Your task to perform on an android device: check android version Image 0: 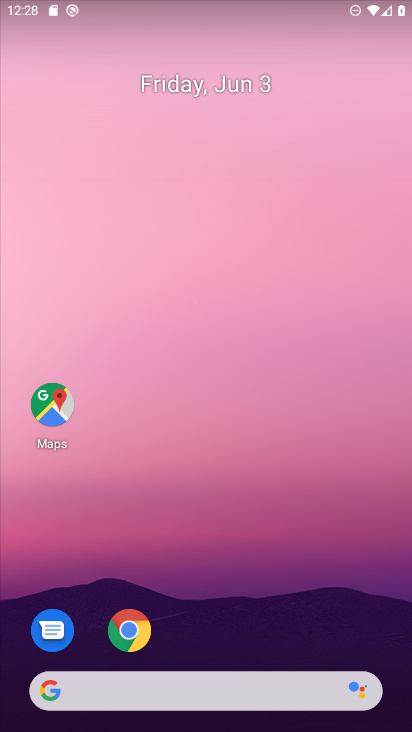
Step 0: drag from (257, 634) to (166, 83)
Your task to perform on an android device: check android version Image 1: 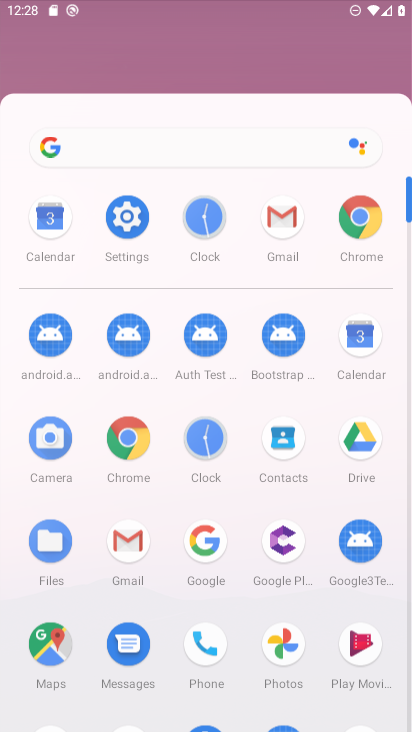
Step 1: click (126, 226)
Your task to perform on an android device: check android version Image 2: 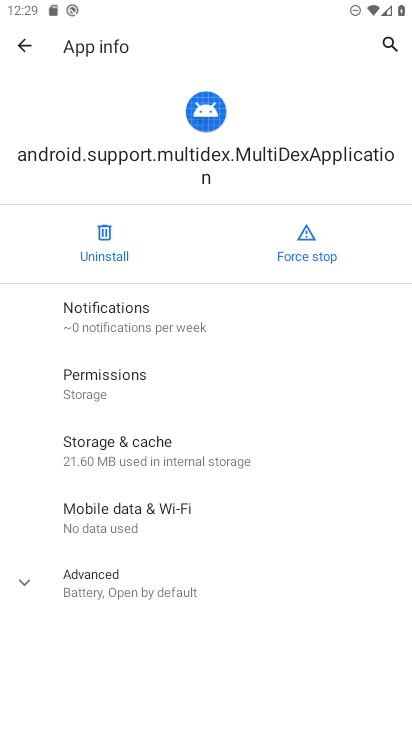
Step 2: click (32, 47)
Your task to perform on an android device: check android version Image 3: 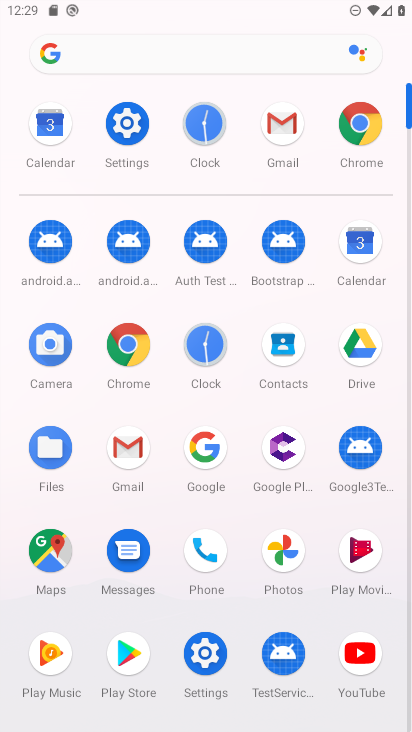
Step 3: click (126, 110)
Your task to perform on an android device: check android version Image 4: 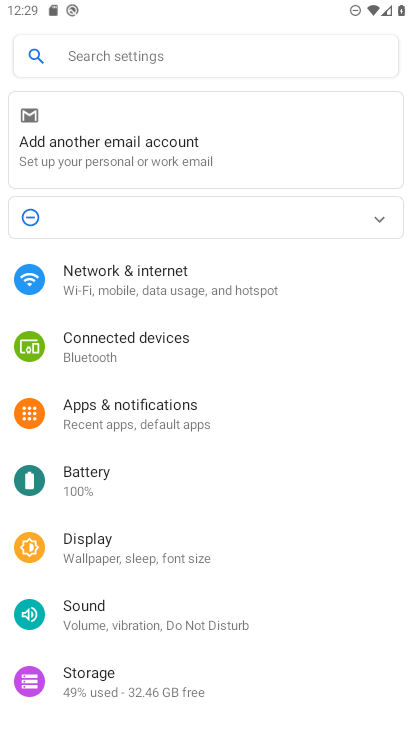
Step 4: drag from (210, 689) to (172, 270)
Your task to perform on an android device: check android version Image 5: 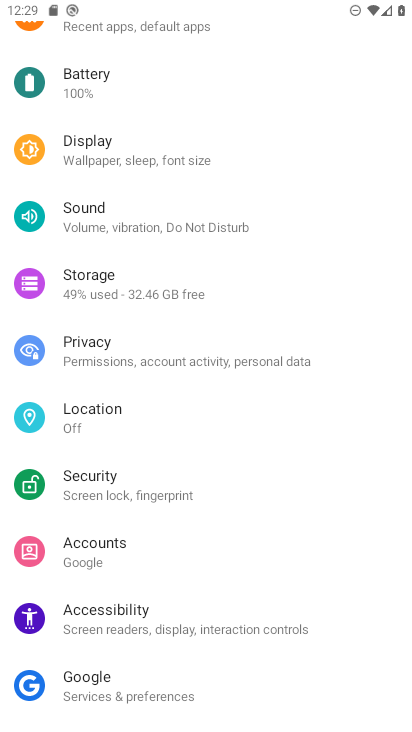
Step 5: drag from (208, 661) to (175, 225)
Your task to perform on an android device: check android version Image 6: 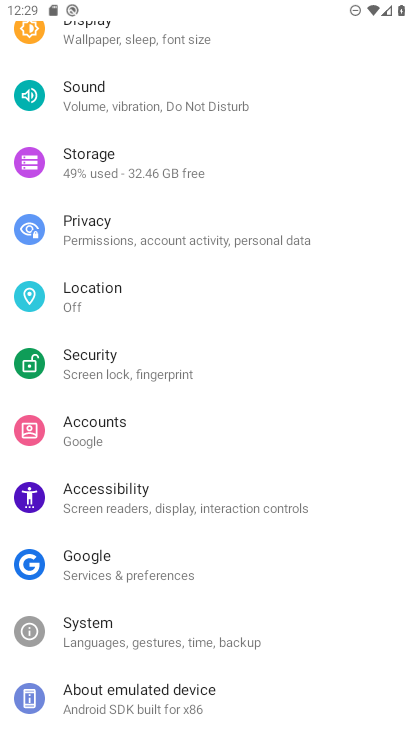
Step 6: click (222, 689)
Your task to perform on an android device: check android version Image 7: 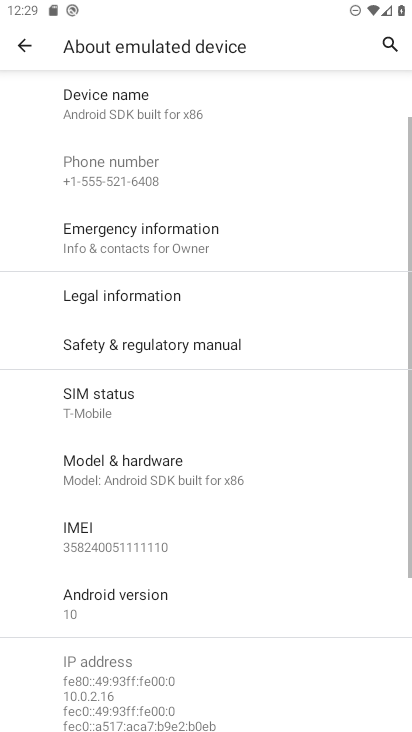
Step 7: click (228, 615)
Your task to perform on an android device: check android version Image 8: 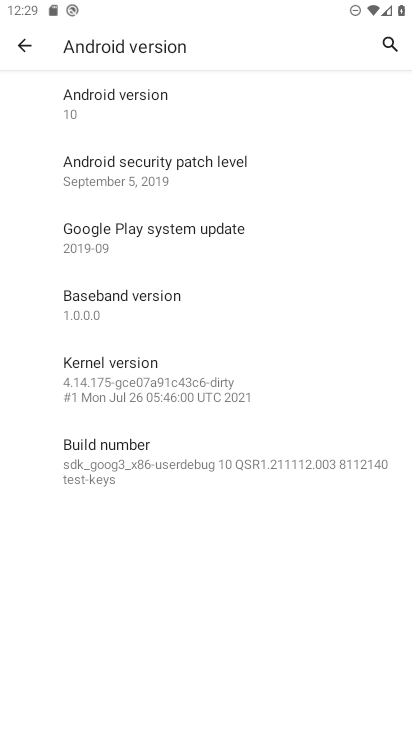
Step 8: click (202, 91)
Your task to perform on an android device: check android version Image 9: 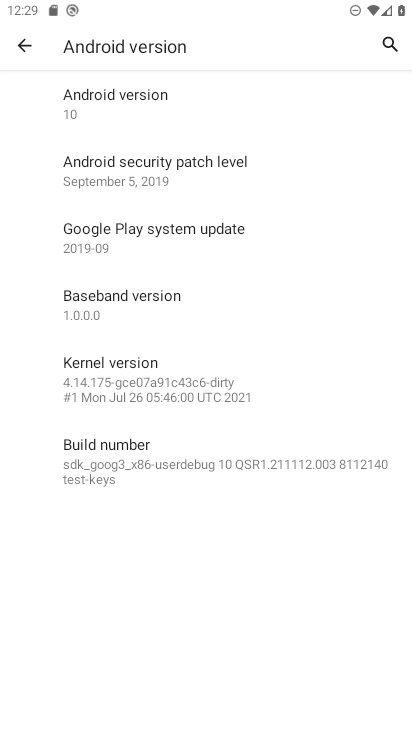
Step 9: task complete